Your task to perform on an android device: Go to Google Image 0: 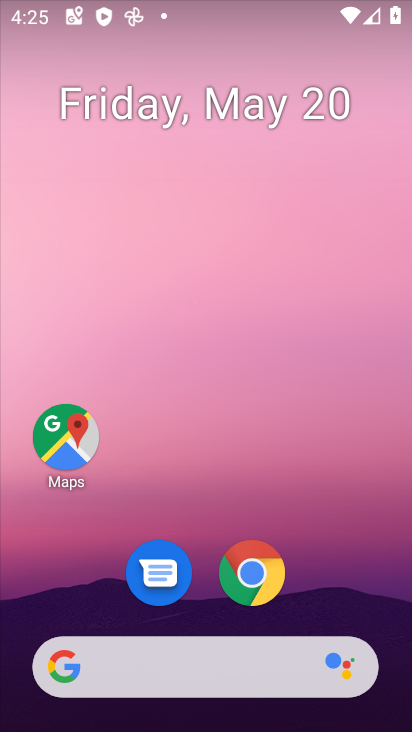
Step 0: click (255, 569)
Your task to perform on an android device: Go to Google Image 1: 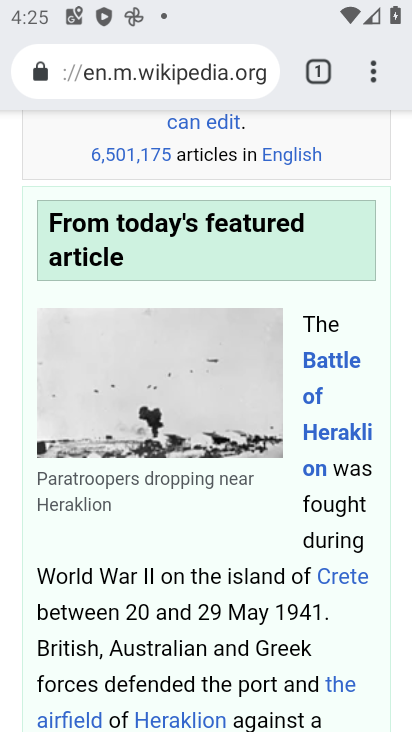
Step 1: task complete